Your task to perform on an android device: Open calendar and show me the first week of next month Image 0: 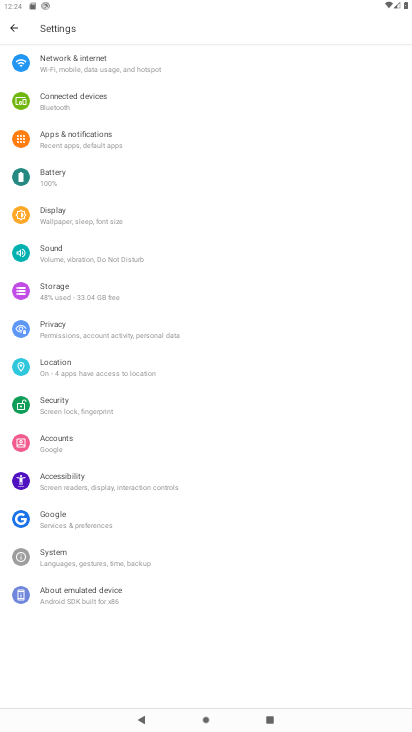
Step 0: click (6, 35)
Your task to perform on an android device: Open calendar and show me the first week of next month Image 1: 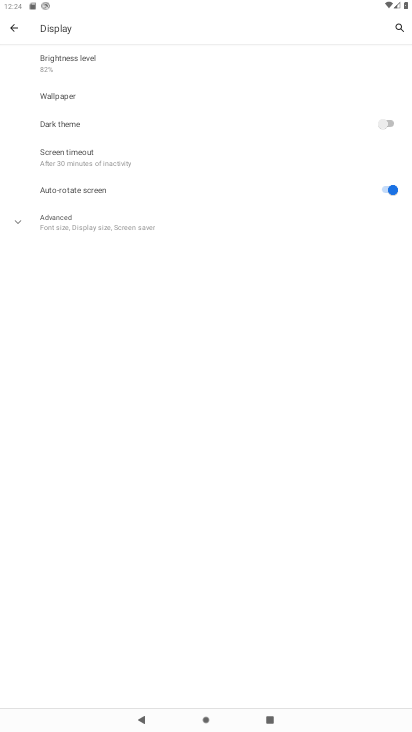
Step 1: click (21, 24)
Your task to perform on an android device: Open calendar and show me the first week of next month Image 2: 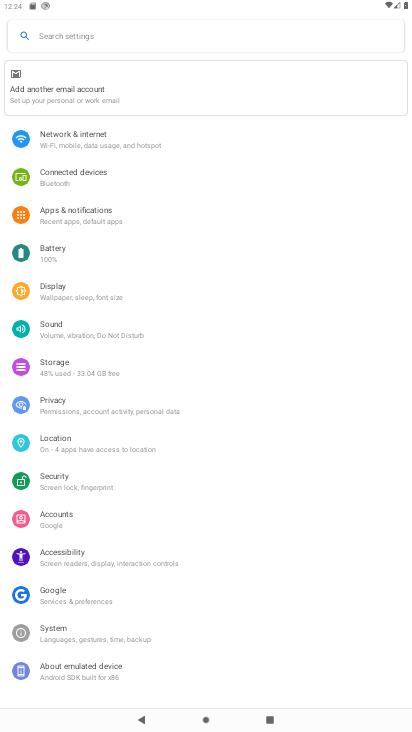
Step 2: press home button
Your task to perform on an android device: Open calendar and show me the first week of next month Image 3: 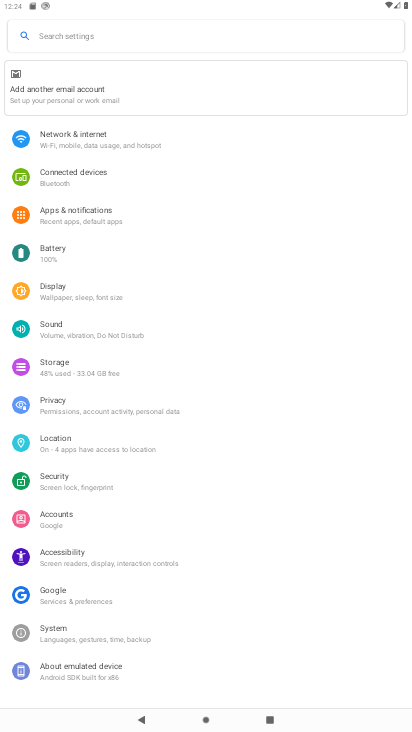
Step 3: press home button
Your task to perform on an android device: Open calendar and show me the first week of next month Image 4: 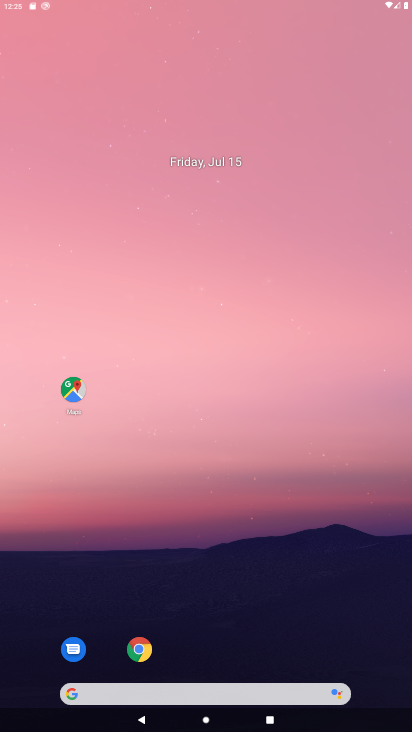
Step 4: press home button
Your task to perform on an android device: Open calendar and show me the first week of next month Image 5: 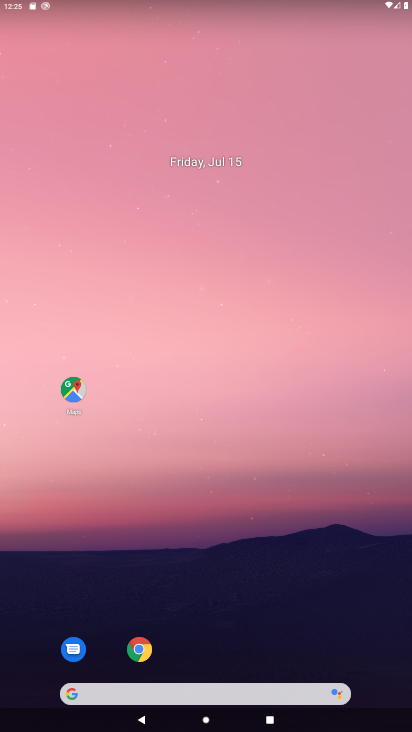
Step 5: press back button
Your task to perform on an android device: Open calendar and show me the first week of next month Image 6: 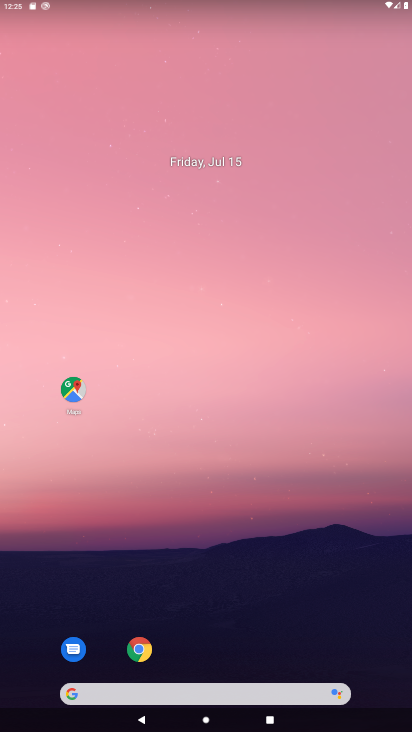
Step 6: drag from (266, 649) to (215, 324)
Your task to perform on an android device: Open calendar and show me the first week of next month Image 7: 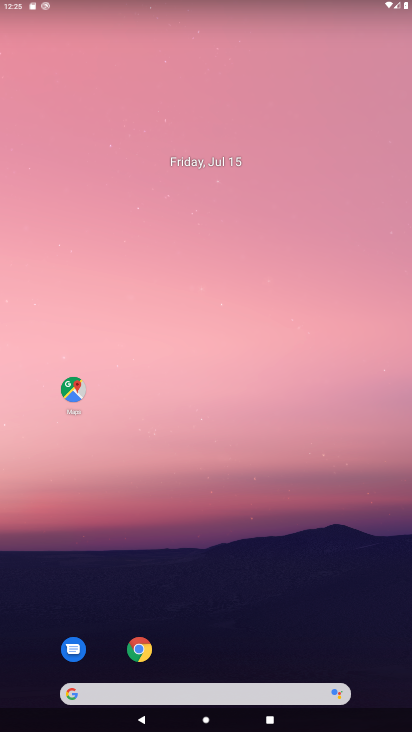
Step 7: drag from (235, 612) to (207, 266)
Your task to perform on an android device: Open calendar and show me the first week of next month Image 8: 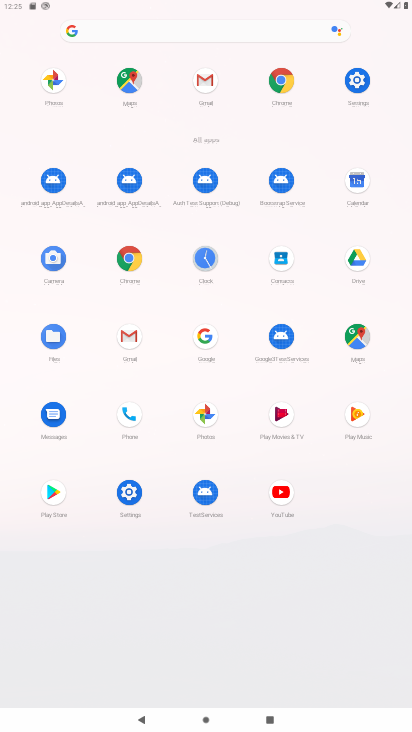
Step 8: click (361, 181)
Your task to perform on an android device: Open calendar and show me the first week of next month Image 9: 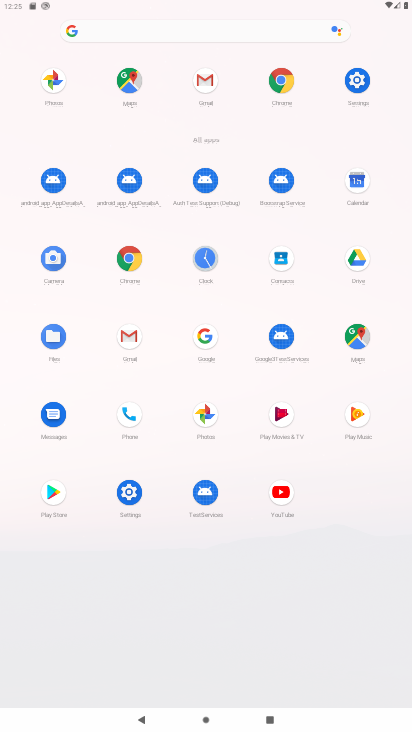
Step 9: click (361, 181)
Your task to perform on an android device: Open calendar and show me the first week of next month Image 10: 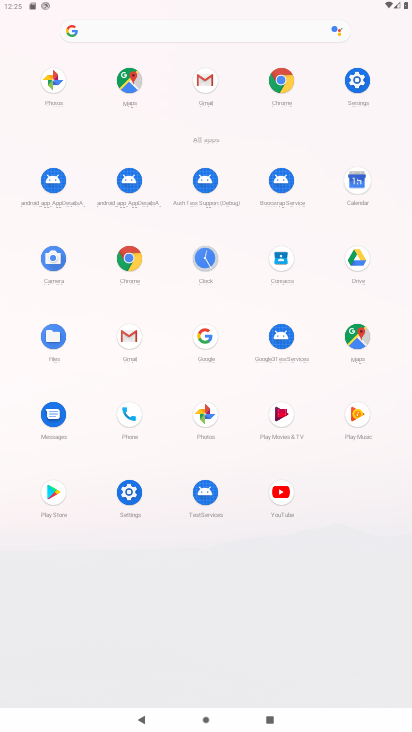
Step 10: click (361, 181)
Your task to perform on an android device: Open calendar and show me the first week of next month Image 11: 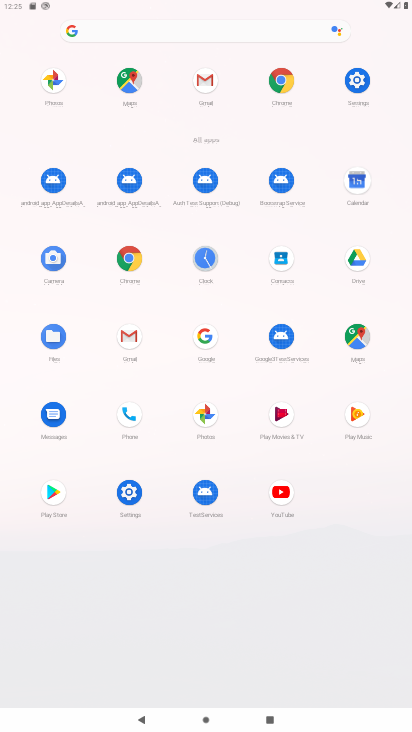
Step 11: click (361, 181)
Your task to perform on an android device: Open calendar and show me the first week of next month Image 12: 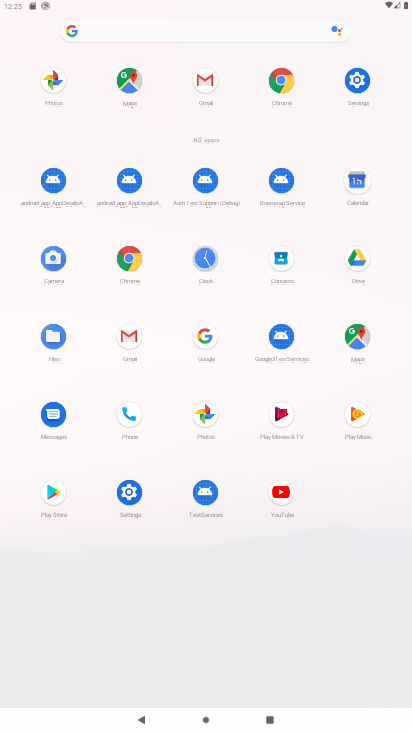
Step 12: click (361, 181)
Your task to perform on an android device: Open calendar and show me the first week of next month Image 13: 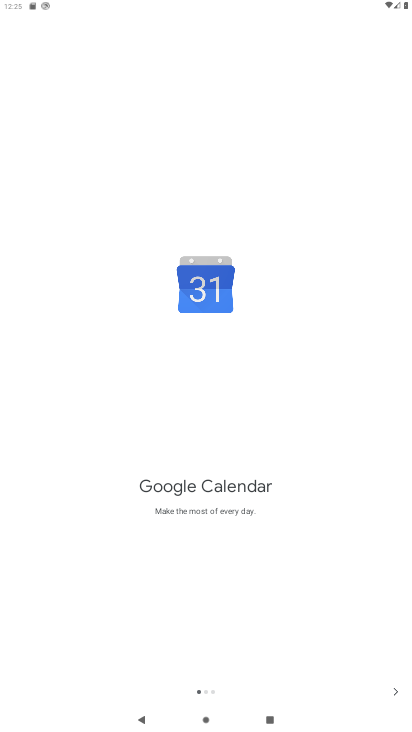
Step 13: click (391, 687)
Your task to perform on an android device: Open calendar and show me the first week of next month Image 14: 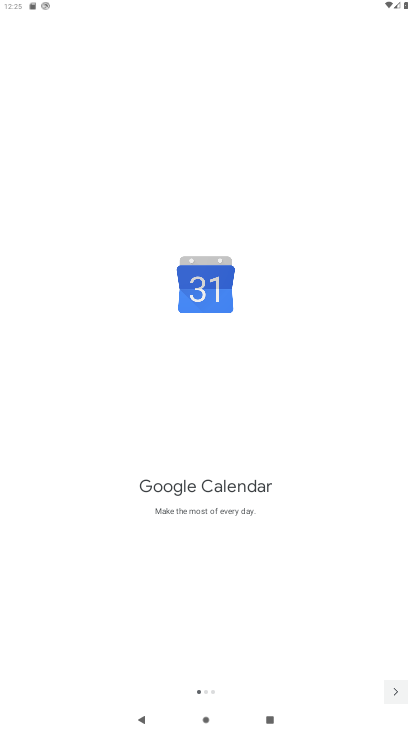
Step 14: click (393, 696)
Your task to perform on an android device: Open calendar and show me the first week of next month Image 15: 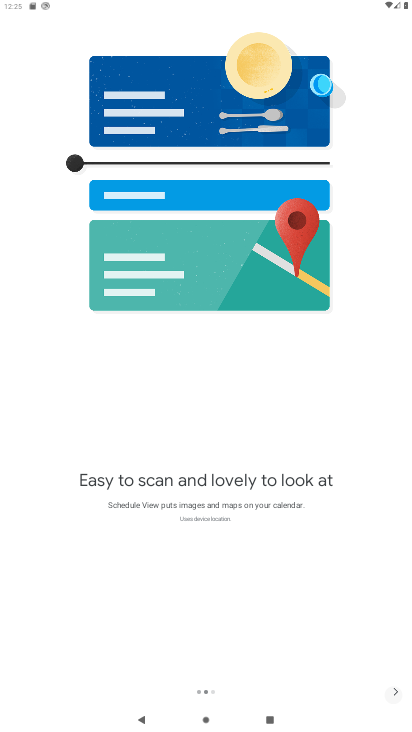
Step 15: click (399, 692)
Your task to perform on an android device: Open calendar and show me the first week of next month Image 16: 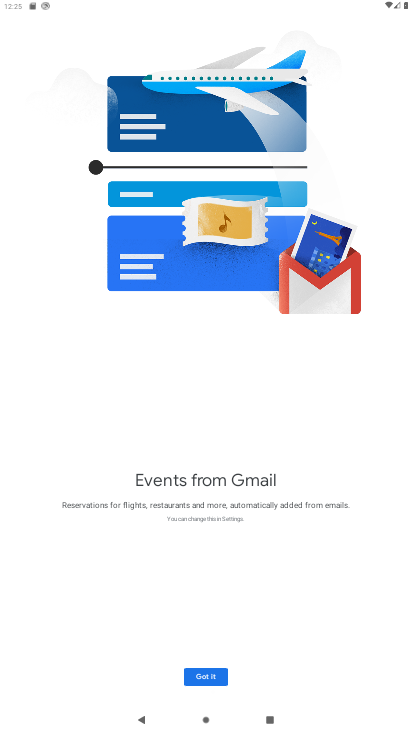
Step 16: click (391, 690)
Your task to perform on an android device: Open calendar and show me the first week of next month Image 17: 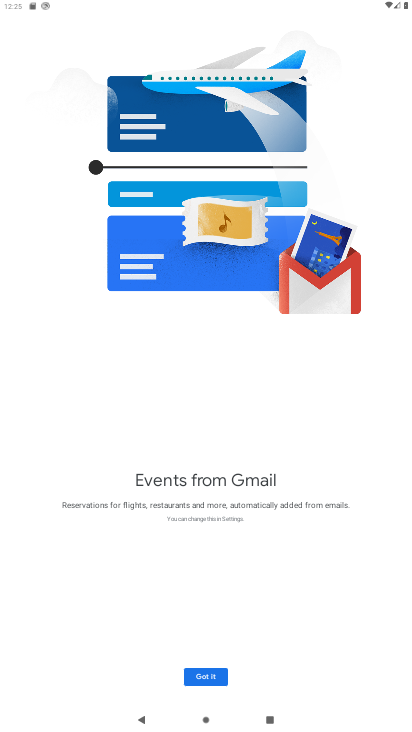
Step 17: click (392, 691)
Your task to perform on an android device: Open calendar and show me the first week of next month Image 18: 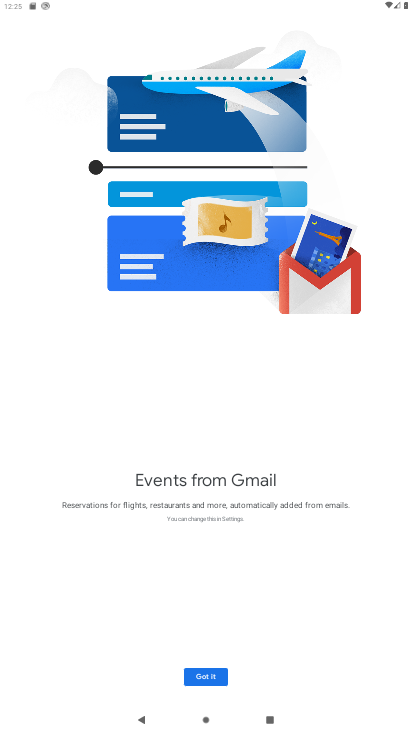
Step 18: click (395, 689)
Your task to perform on an android device: Open calendar and show me the first week of next month Image 19: 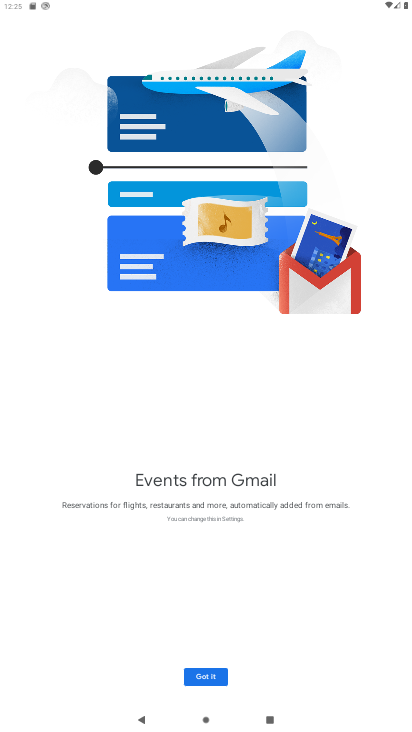
Step 19: click (398, 690)
Your task to perform on an android device: Open calendar and show me the first week of next month Image 20: 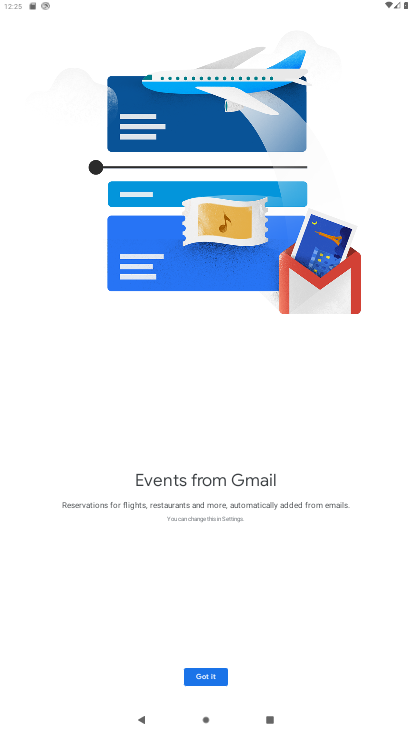
Step 20: click (398, 689)
Your task to perform on an android device: Open calendar and show me the first week of next month Image 21: 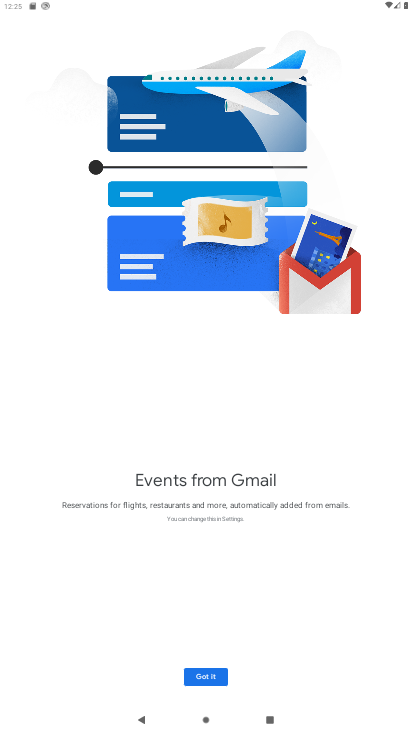
Step 21: click (400, 689)
Your task to perform on an android device: Open calendar and show me the first week of next month Image 22: 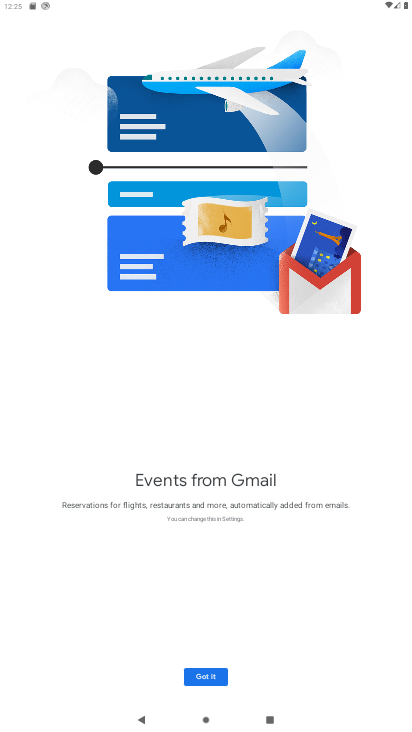
Step 22: click (200, 666)
Your task to perform on an android device: Open calendar and show me the first week of next month Image 23: 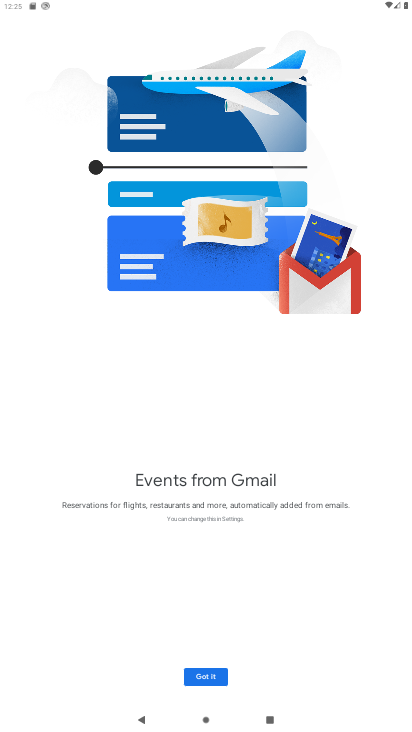
Step 23: click (203, 666)
Your task to perform on an android device: Open calendar and show me the first week of next month Image 24: 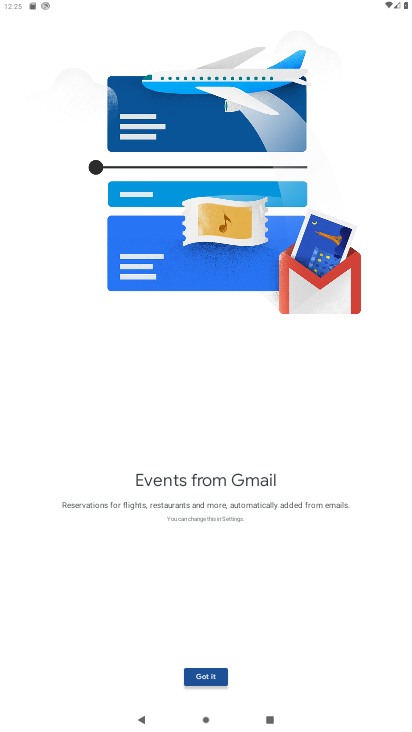
Step 24: click (203, 666)
Your task to perform on an android device: Open calendar and show me the first week of next month Image 25: 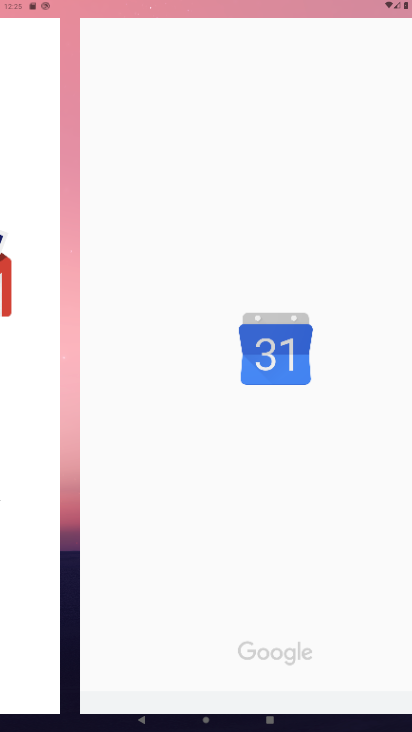
Step 25: click (207, 666)
Your task to perform on an android device: Open calendar and show me the first week of next month Image 26: 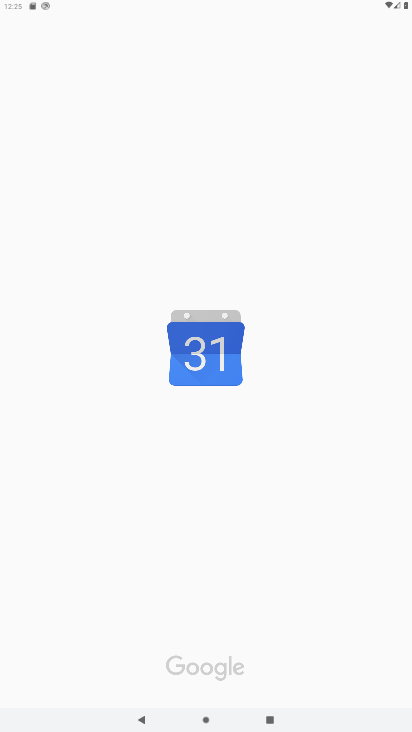
Step 26: click (207, 664)
Your task to perform on an android device: Open calendar and show me the first week of next month Image 27: 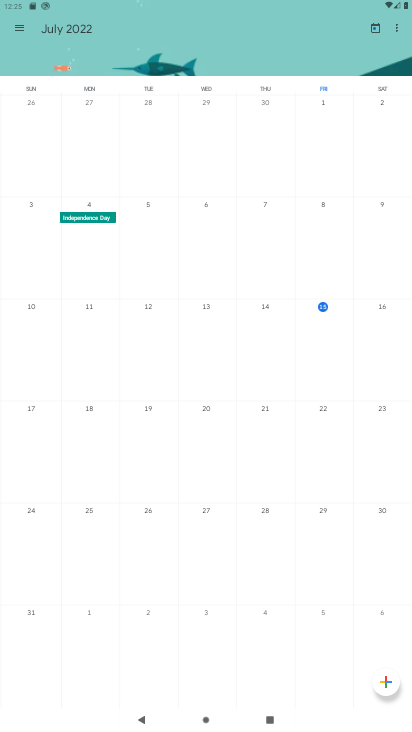
Step 27: drag from (317, 344) to (7, 261)
Your task to perform on an android device: Open calendar and show me the first week of next month Image 28: 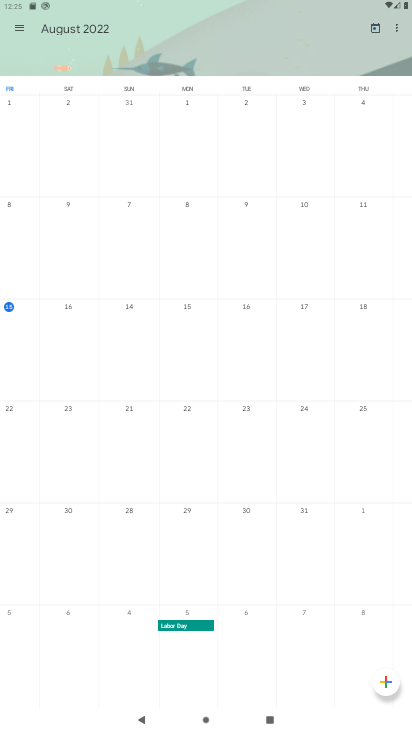
Step 28: drag from (271, 353) to (7, 426)
Your task to perform on an android device: Open calendar and show me the first week of next month Image 29: 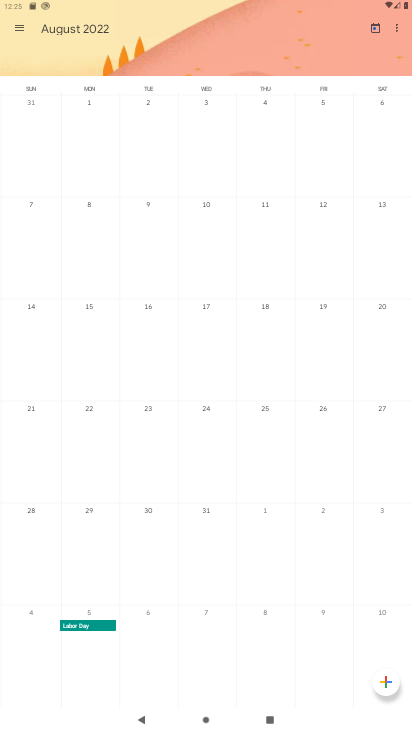
Step 29: click (200, 209)
Your task to perform on an android device: Open calendar and show me the first week of next month Image 30: 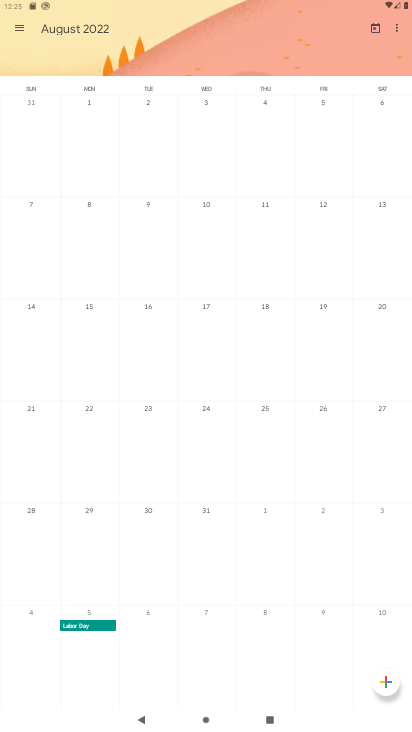
Step 30: click (201, 208)
Your task to perform on an android device: Open calendar and show me the first week of next month Image 31: 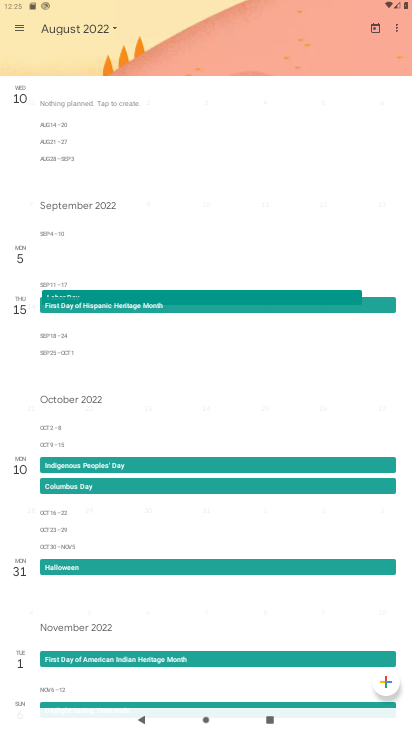
Step 31: click (201, 208)
Your task to perform on an android device: Open calendar and show me the first week of next month Image 32: 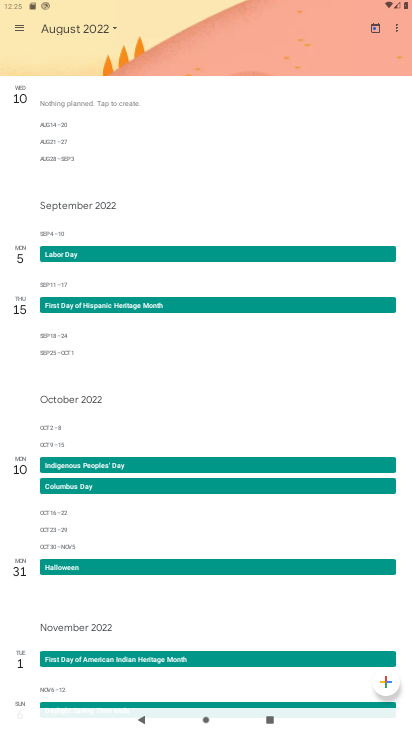
Step 32: click (201, 208)
Your task to perform on an android device: Open calendar and show me the first week of next month Image 33: 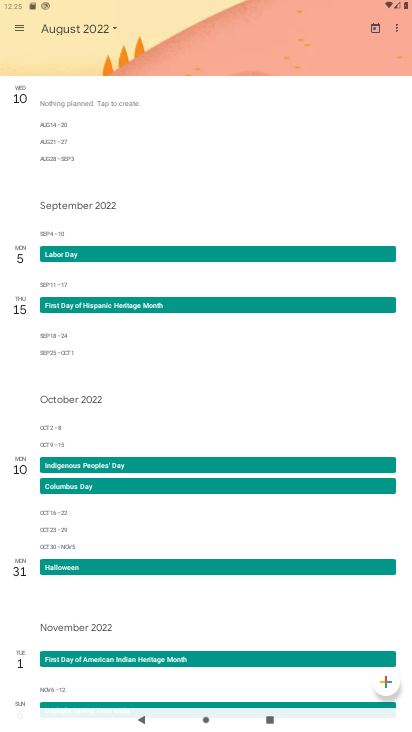
Step 33: click (202, 210)
Your task to perform on an android device: Open calendar and show me the first week of next month Image 34: 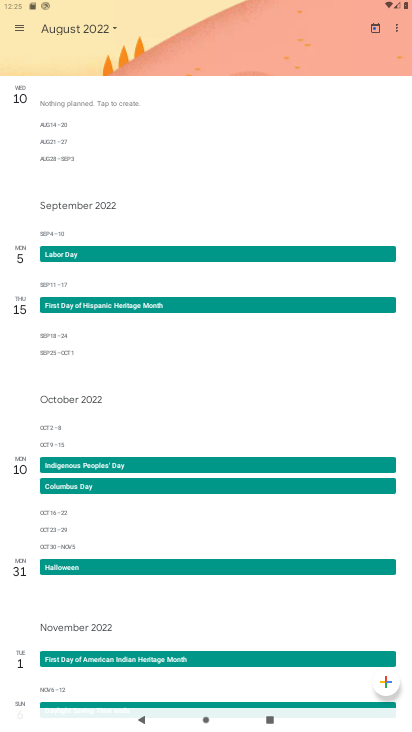
Step 34: click (202, 210)
Your task to perform on an android device: Open calendar and show me the first week of next month Image 35: 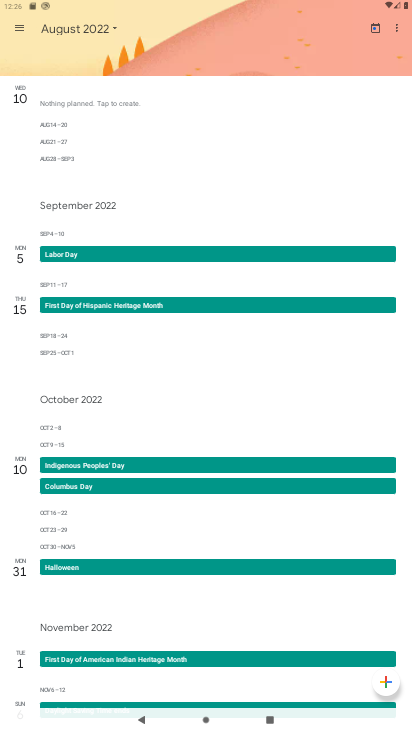
Step 35: click (202, 210)
Your task to perform on an android device: Open calendar and show me the first week of next month Image 36: 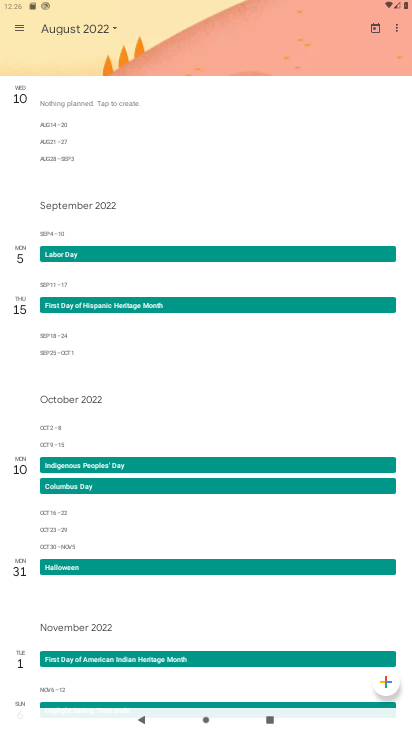
Step 36: task complete